Your task to perform on an android device: read, delete, or share a saved page in the chrome app Image 0: 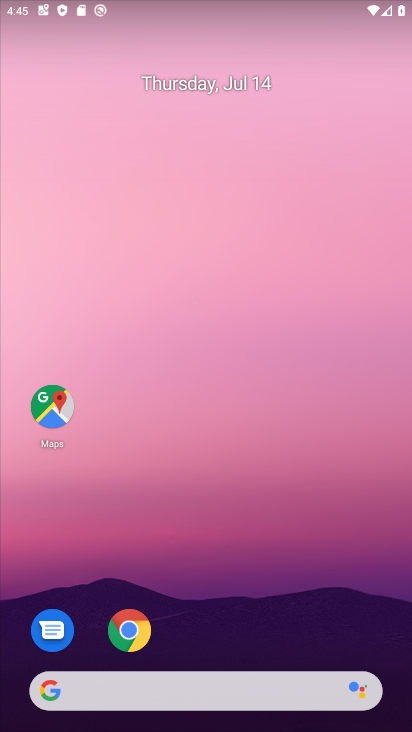
Step 0: click (137, 624)
Your task to perform on an android device: read, delete, or share a saved page in the chrome app Image 1: 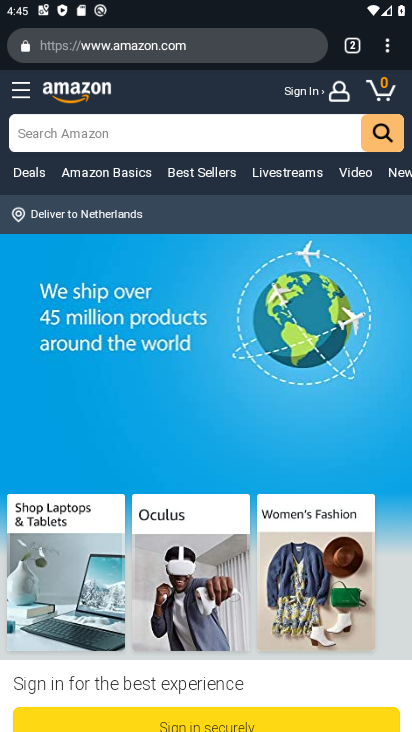
Step 1: drag from (389, 43) to (239, 290)
Your task to perform on an android device: read, delete, or share a saved page in the chrome app Image 2: 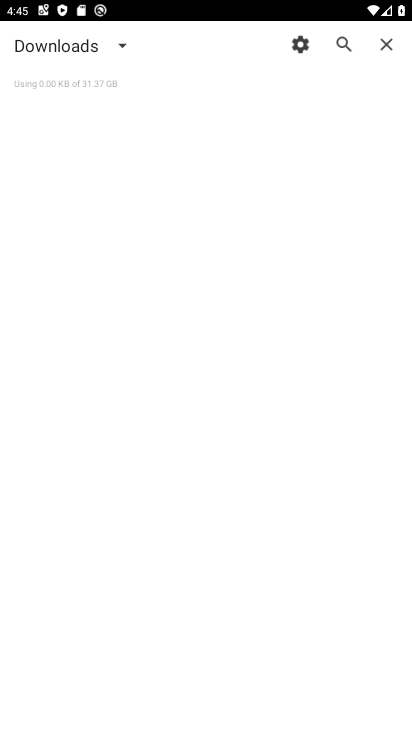
Step 2: click (120, 44)
Your task to perform on an android device: read, delete, or share a saved page in the chrome app Image 3: 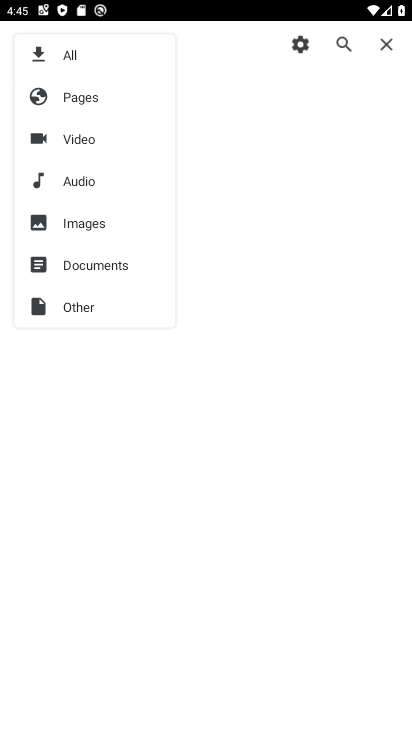
Step 3: click (102, 102)
Your task to perform on an android device: read, delete, or share a saved page in the chrome app Image 4: 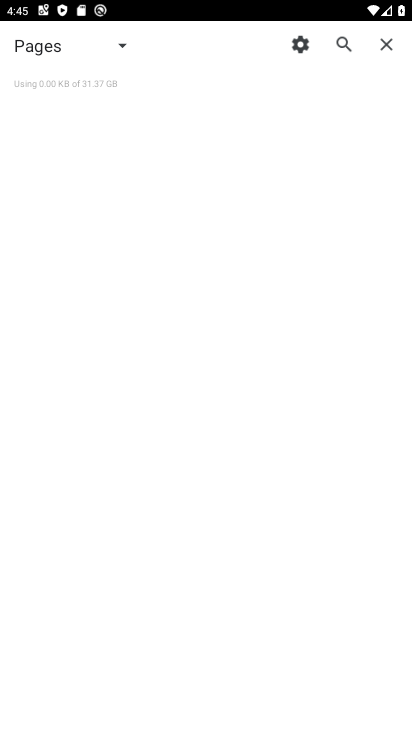
Step 4: task complete